Your task to perform on an android device: Open Google Chrome Image 0: 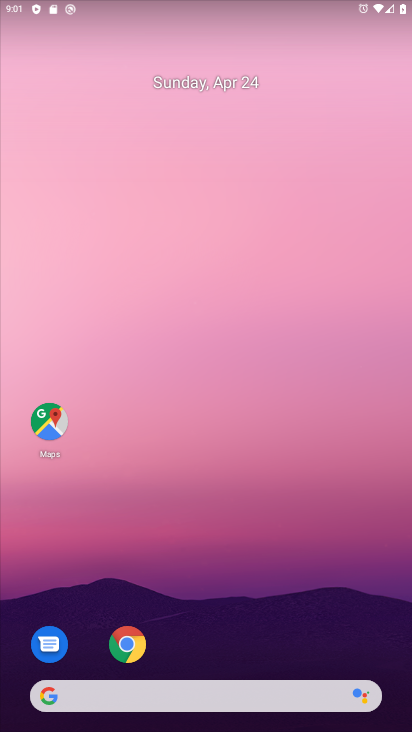
Step 0: click (120, 635)
Your task to perform on an android device: Open Google Chrome Image 1: 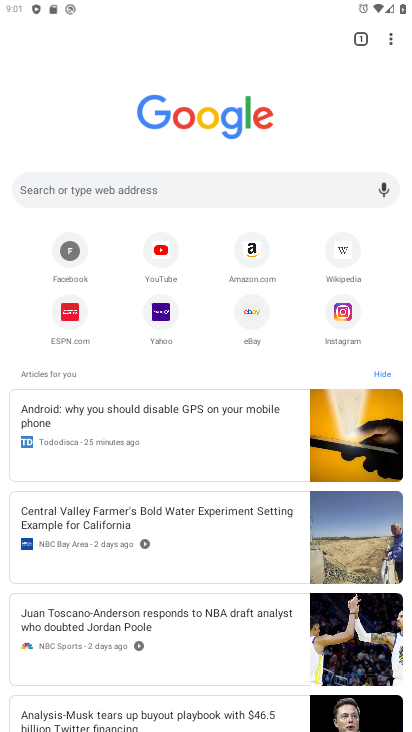
Step 1: task complete